Your task to perform on an android device: Check the price on the Dyson V11 Motorhead on Best Buy Image 0: 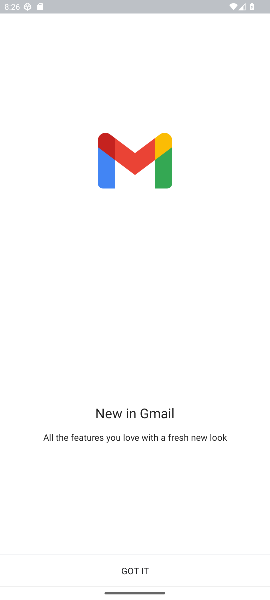
Step 0: press home button
Your task to perform on an android device: Check the price on the Dyson V11 Motorhead on Best Buy Image 1: 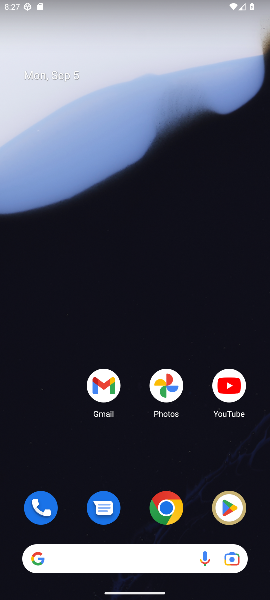
Step 1: click (170, 503)
Your task to perform on an android device: Check the price on the Dyson V11 Motorhead on Best Buy Image 2: 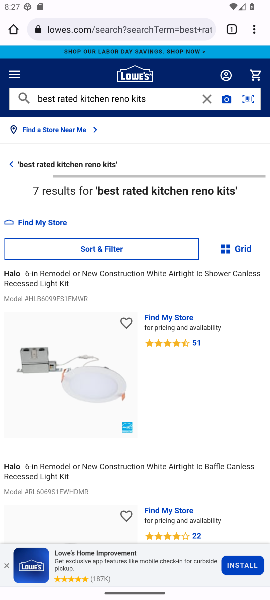
Step 2: click (113, 36)
Your task to perform on an android device: Check the price on the Dyson V11 Motorhead on Best Buy Image 3: 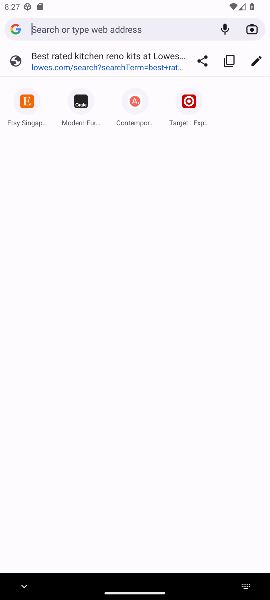
Step 3: type "Best Buy"
Your task to perform on an android device: Check the price on the Dyson V11 Motorhead on Best Buy Image 4: 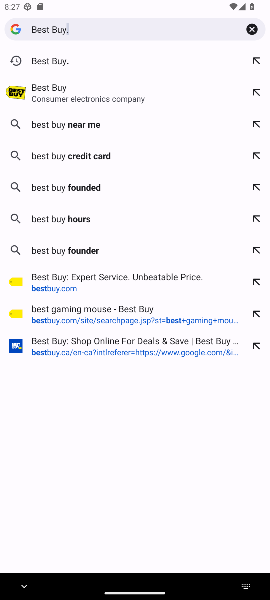
Step 4: click (58, 99)
Your task to perform on an android device: Check the price on the Dyson V11 Motorhead on Best Buy Image 5: 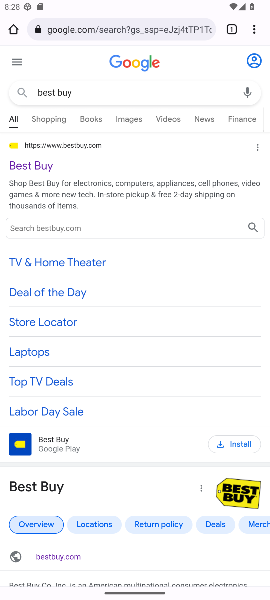
Step 5: click (40, 168)
Your task to perform on an android device: Check the price on the Dyson V11 Motorhead on Best Buy Image 6: 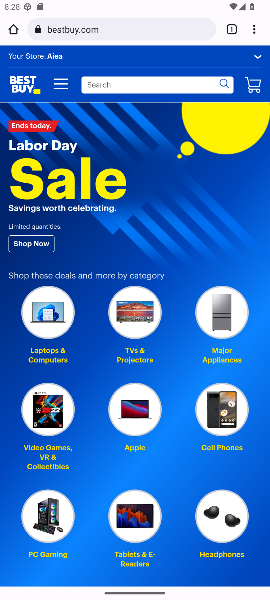
Step 6: click (118, 83)
Your task to perform on an android device: Check the price on the Dyson V11 Motorhead on Best Buy Image 7: 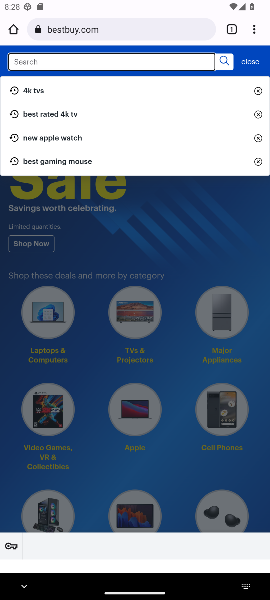
Step 7: type "Dyson V11 Motorhead "
Your task to perform on an android device: Check the price on the Dyson V11 Motorhead on Best Buy Image 8: 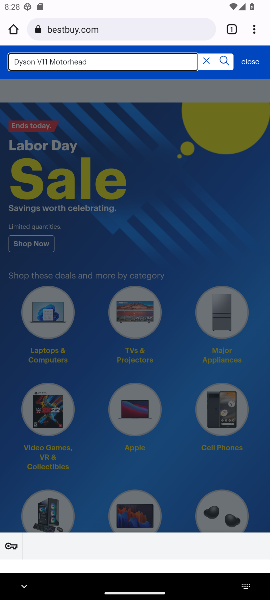
Step 8: click (224, 60)
Your task to perform on an android device: Check the price on the Dyson V11 Motorhead on Best Buy Image 9: 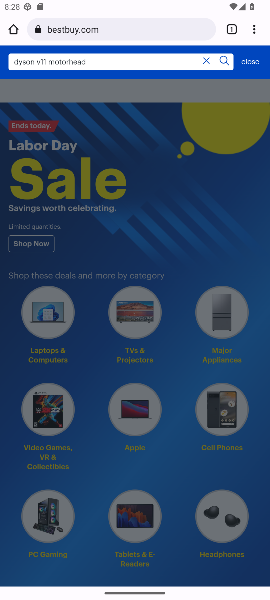
Step 9: click (224, 63)
Your task to perform on an android device: Check the price on the Dyson V11 Motorhead on Best Buy Image 10: 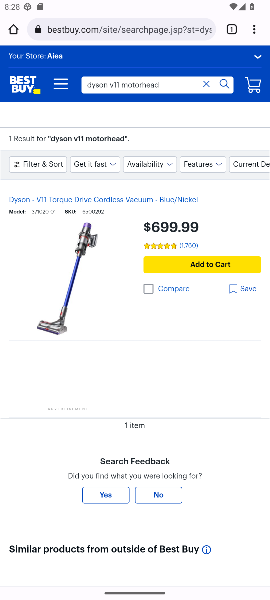
Step 10: task complete